Your task to perform on an android device: uninstall "Cash App" Image 0: 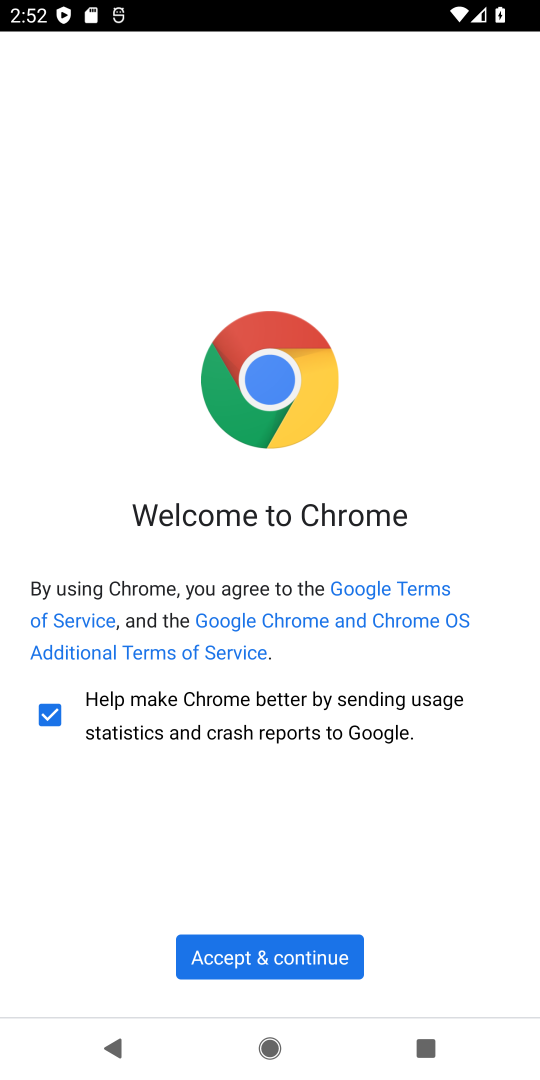
Step 0: press home button
Your task to perform on an android device: uninstall "Cash App" Image 1: 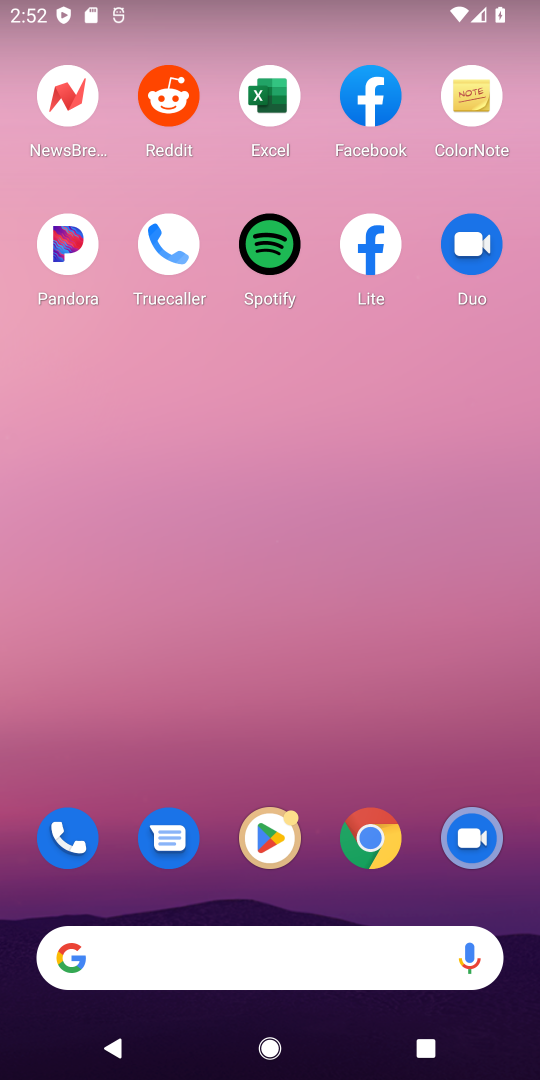
Step 1: drag from (434, 656) to (435, 155)
Your task to perform on an android device: uninstall "Cash App" Image 2: 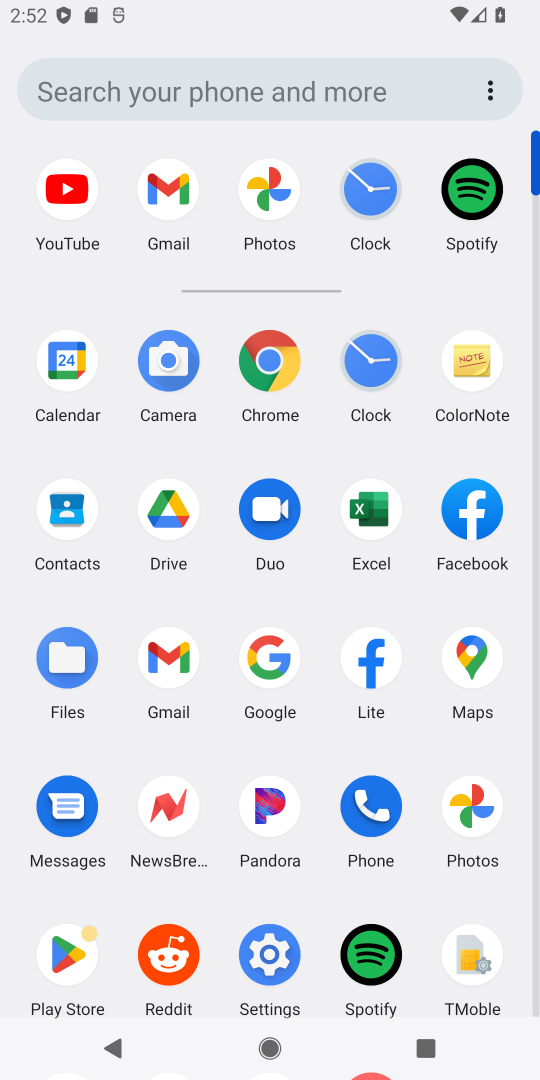
Step 2: click (57, 954)
Your task to perform on an android device: uninstall "Cash App" Image 3: 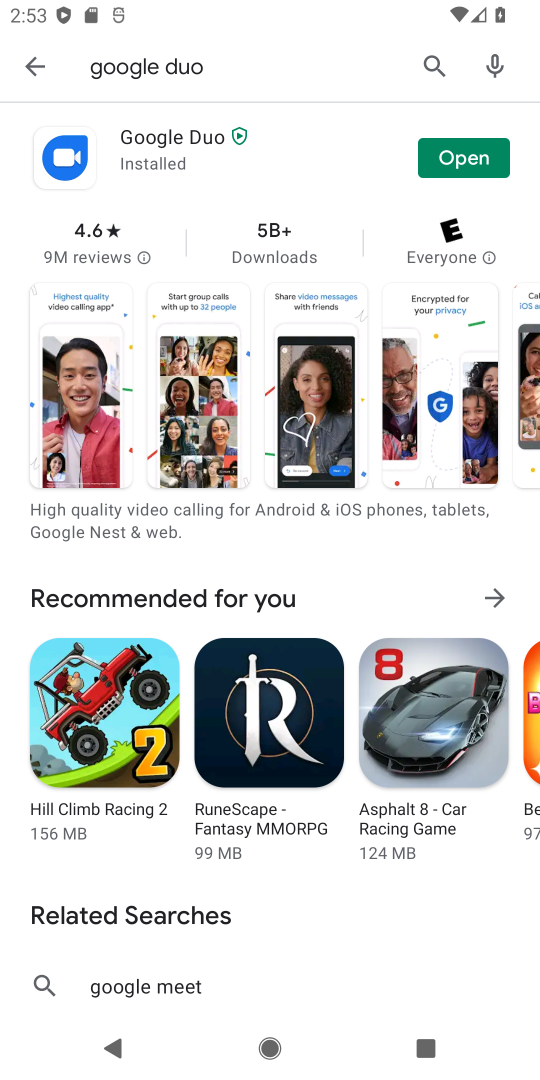
Step 3: press back button
Your task to perform on an android device: uninstall "Cash App" Image 4: 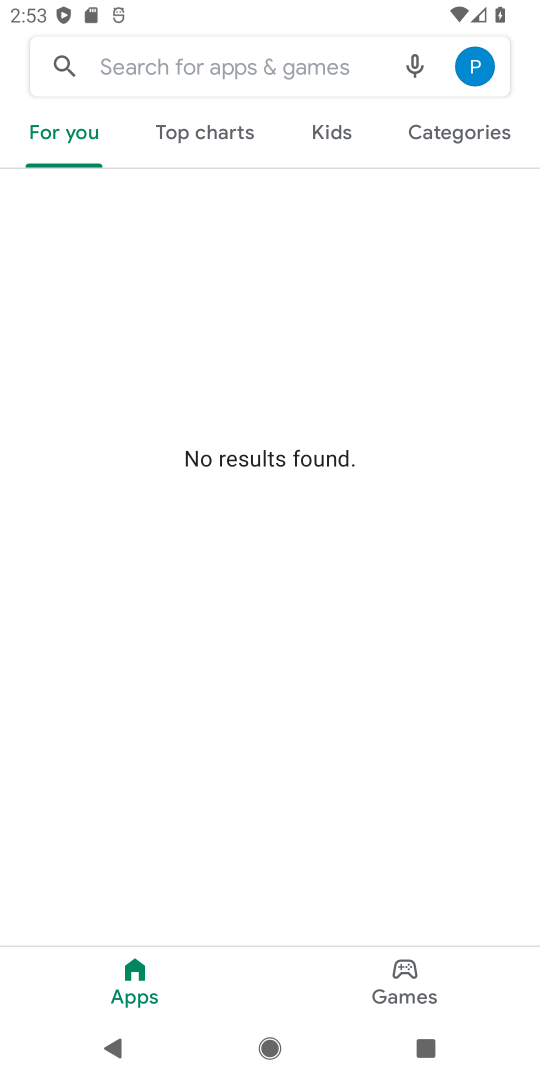
Step 4: click (293, 65)
Your task to perform on an android device: uninstall "Cash App" Image 5: 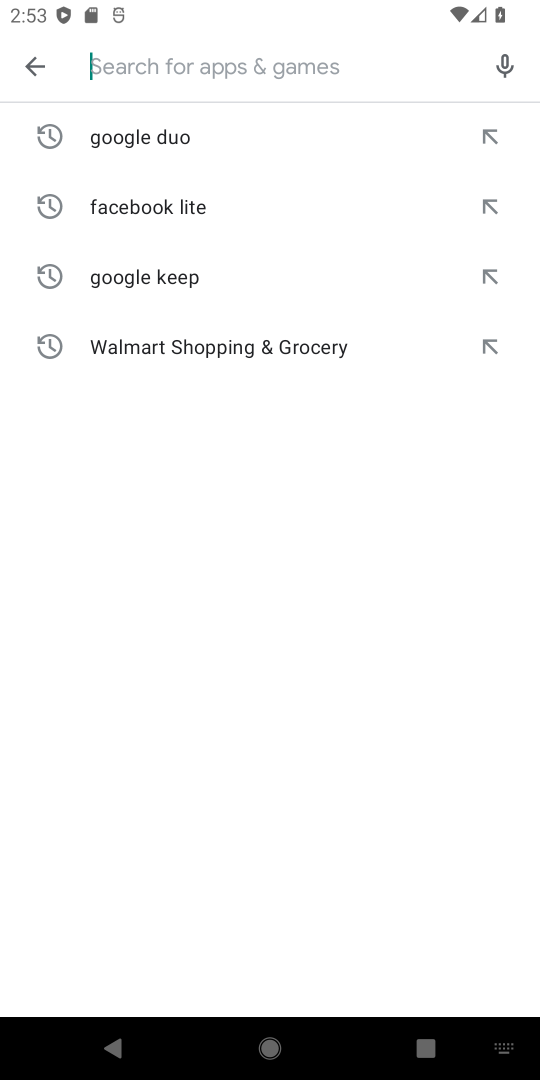
Step 5: press enter
Your task to perform on an android device: uninstall "Cash App" Image 6: 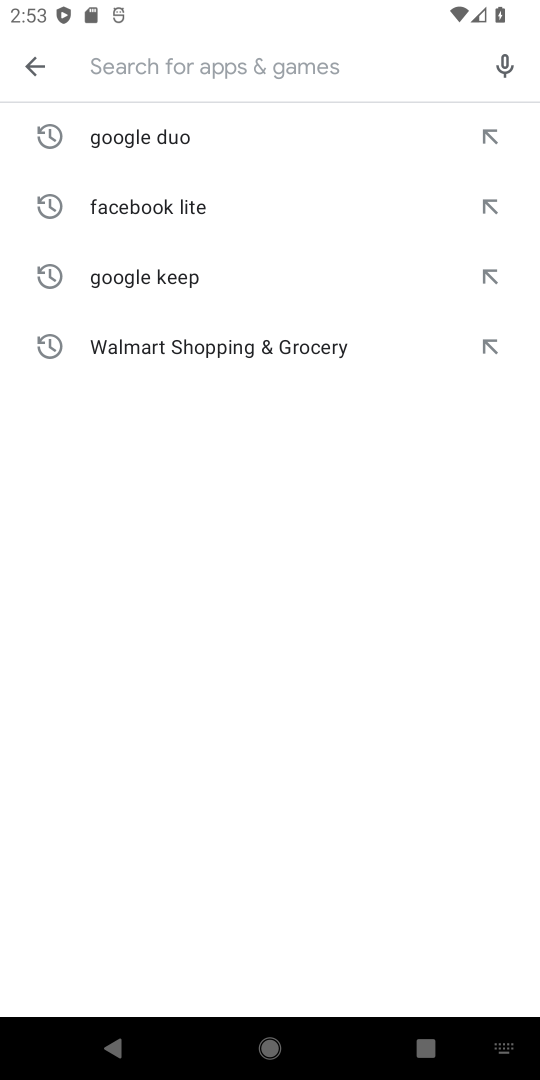
Step 6: type "cash app"
Your task to perform on an android device: uninstall "Cash App" Image 7: 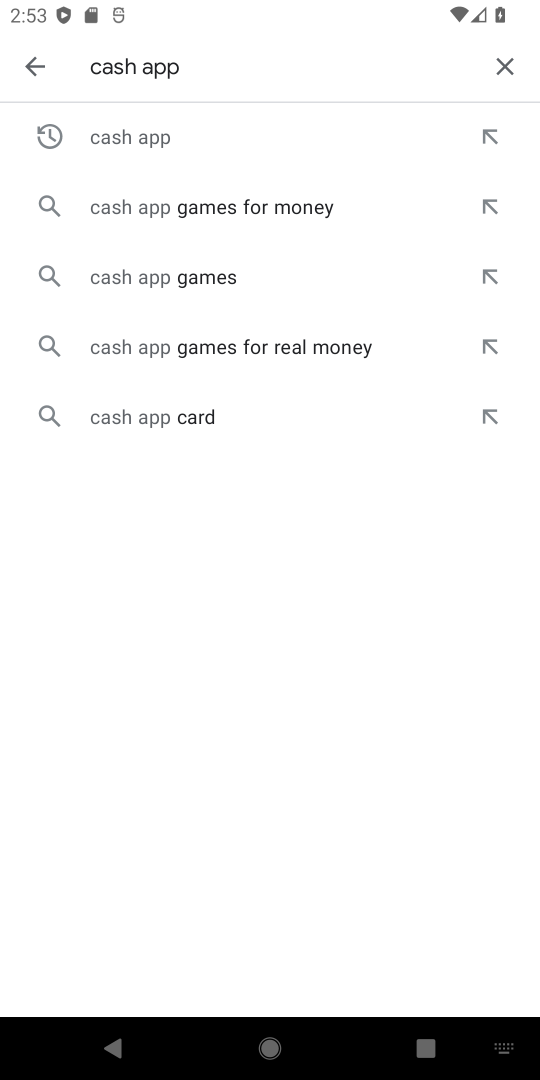
Step 7: click (166, 132)
Your task to perform on an android device: uninstall "Cash App" Image 8: 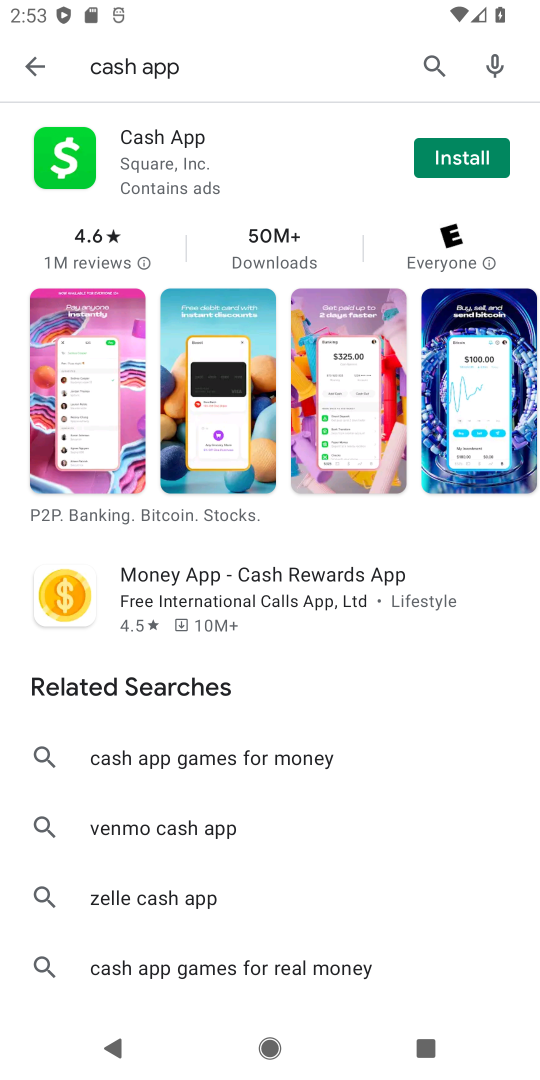
Step 8: task complete